Your task to perform on an android device: Open eBay Image 0: 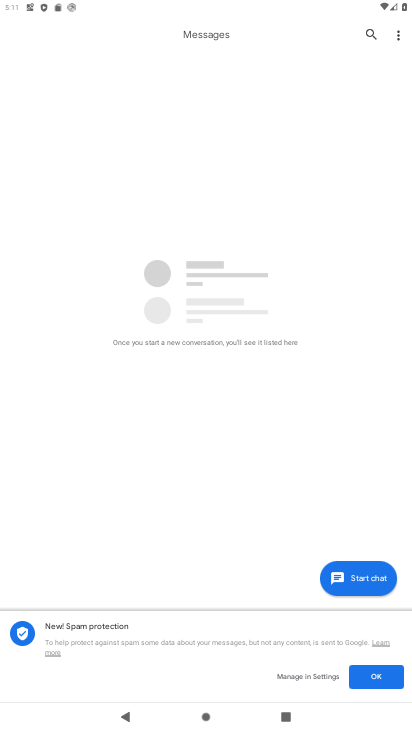
Step 0: press home button
Your task to perform on an android device: Open eBay Image 1: 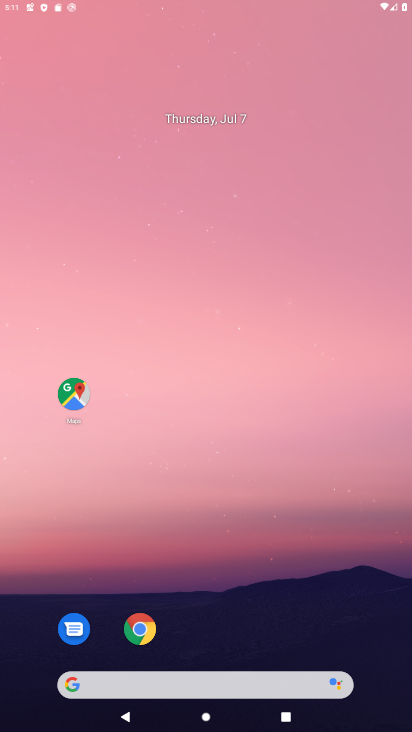
Step 1: drag from (182, 564) to (90, 136)
Your task to perform on an android device: Open eBay Image 2: 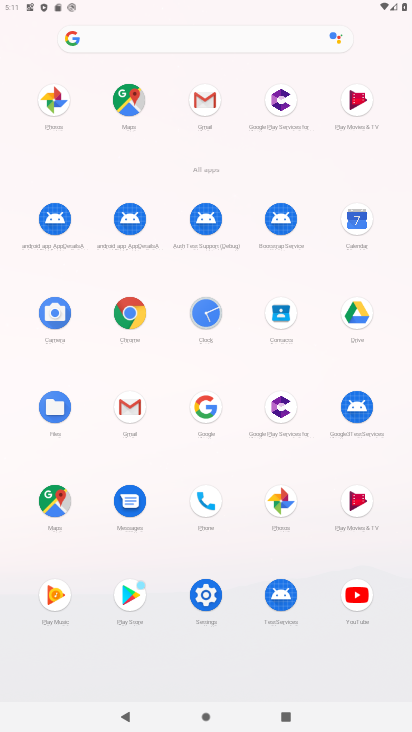
Step 2: click (132, 307)
Your task to perform on an android device: Open eBay Image 3: 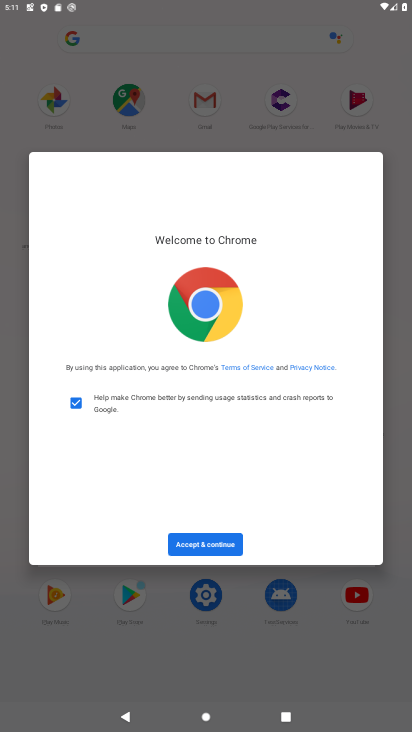
Step 3: click (227, 541)
Your task to perform on an android device: Open eBay Image 4: 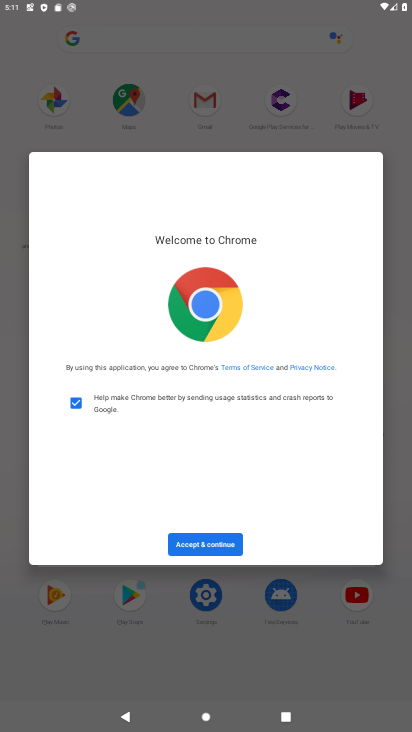
Step 4: click (227, 541)
Your task to perform on an android device: Open eBay Image 5: 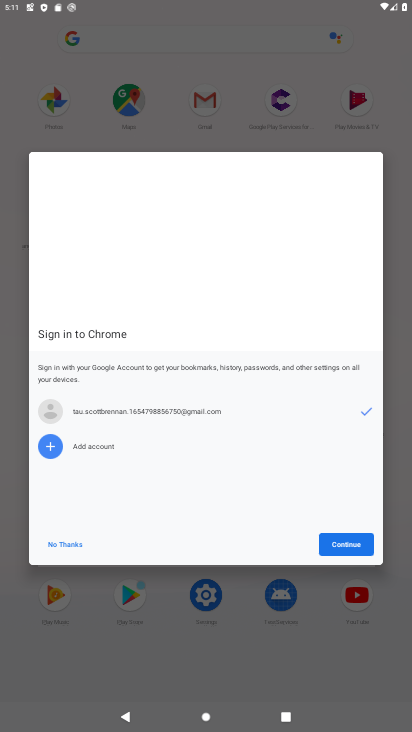
Step 5: click (320, 527)
Your task to perform on an android device: Open eBay Image 6: 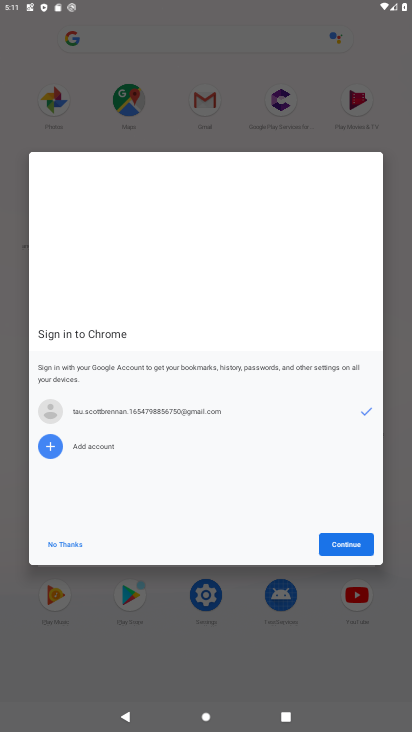
Step 6: click (336, 553)
Your task to perform on an android device: Open eBay Image 7: 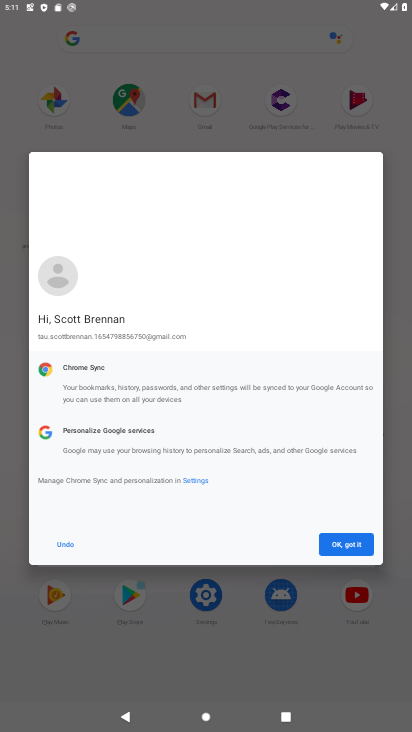
Step 7: click (336, 553)
Your task to perform on an android device: Open eBay Image 8: 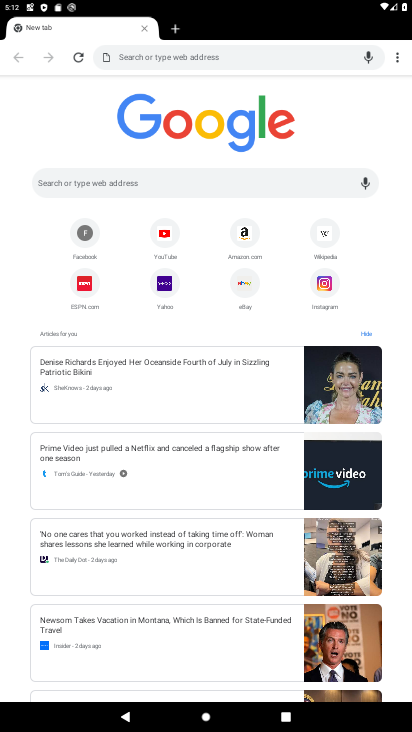
Step 8: click (166, 30)
Your task to perform on an android device: Open eBay Image 9: 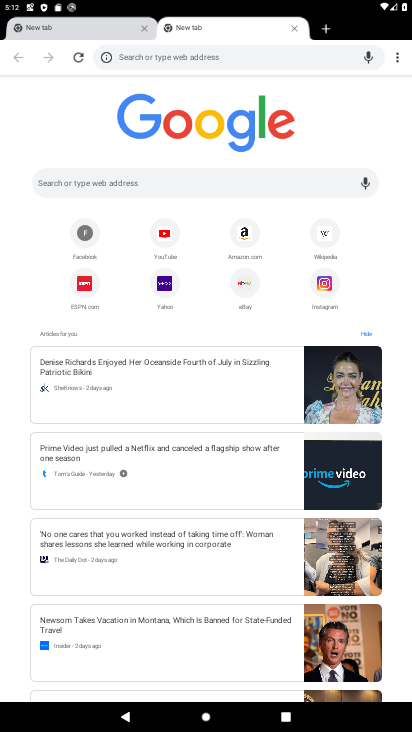
Step 9: click (106, 28)
Your task to perform on an android device: Open eBay Image 10: 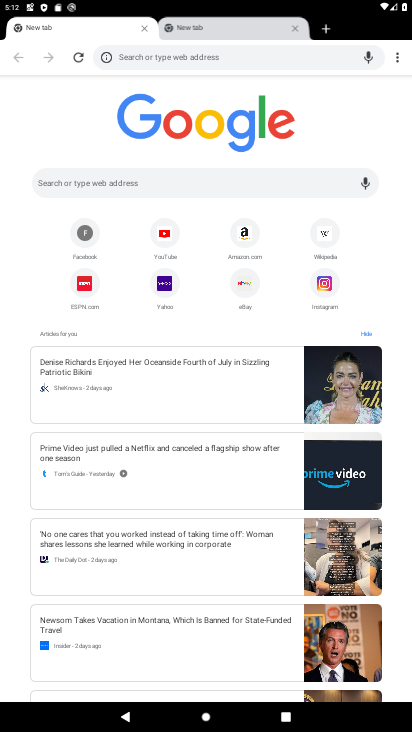
Step 10: click (115, 187)
Your task to perform on an android device: Open eBay Image 11: 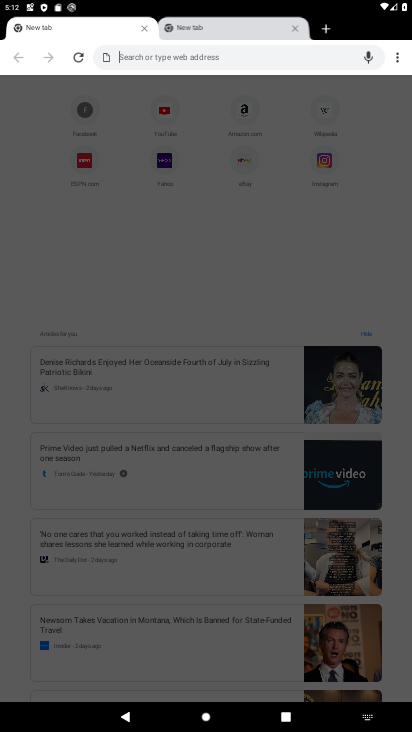
Step 11: click (299, 25)
Your task to perform on an android device: Open eBay Image 12: 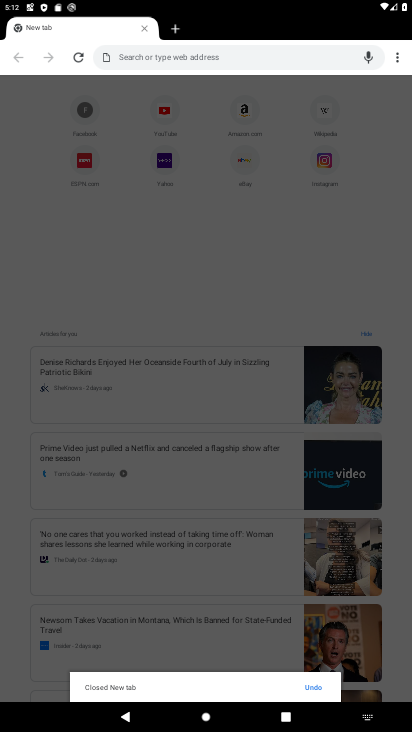
Step 12: click (247, 66)
Your task to perform on an android device: Open eBay Image 13: 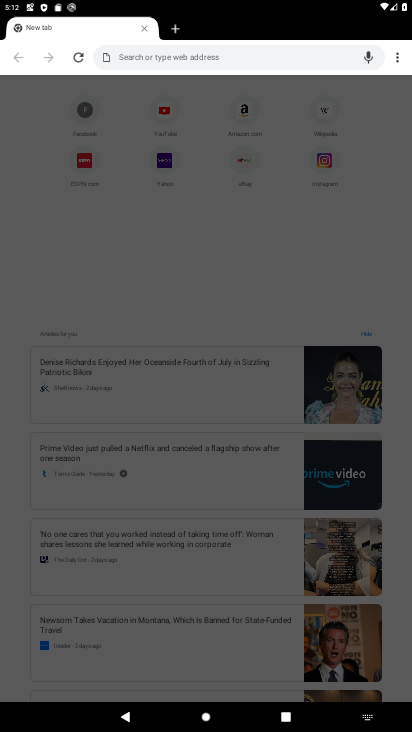
Step 13: type " eBay"
Your task to perform on an android device: Open eBay Image 14: 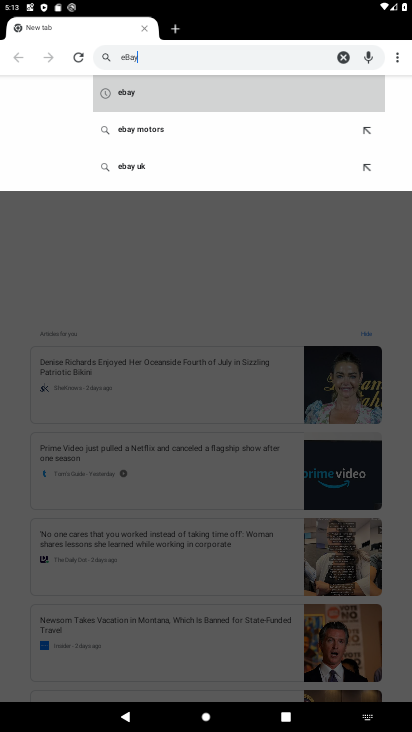
Step 14: type ""
Your task to perform on an android device: Open eBay Image 15: 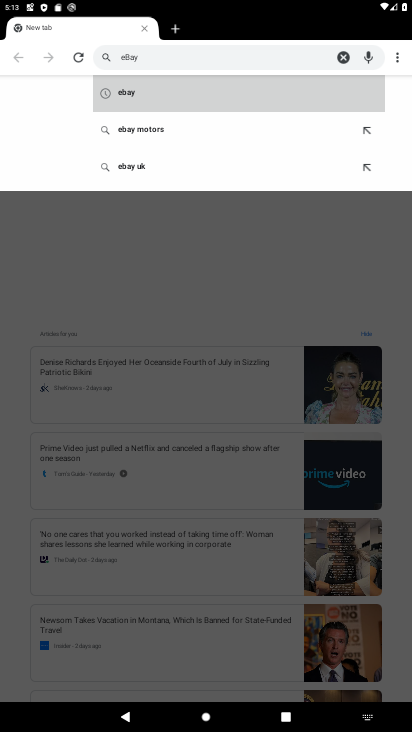
Step 15: click (136, 97)
Your task to perform on an android device: Open eBay Image 16: 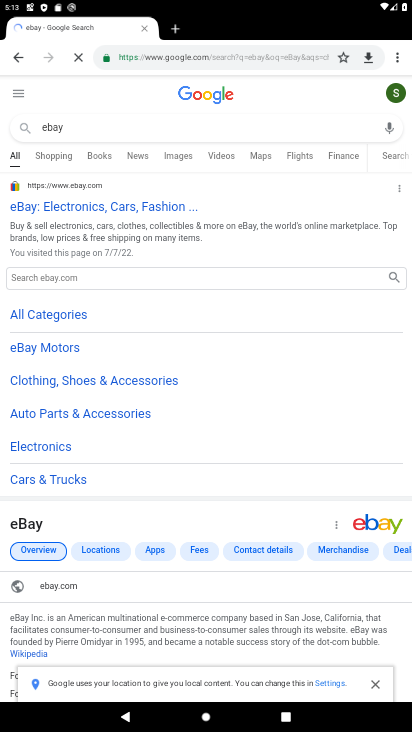
Step 16: task complete